Your task to perform on an android device: Open eBay Image 0: 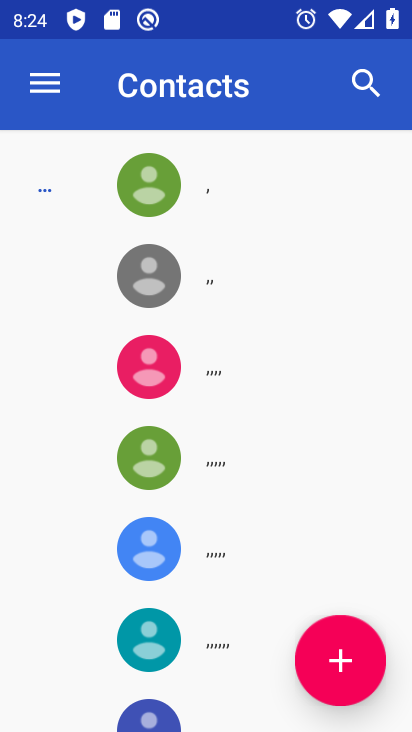
Step 0: press home button
Your task to perform on an android device: Open eBay Image 1: 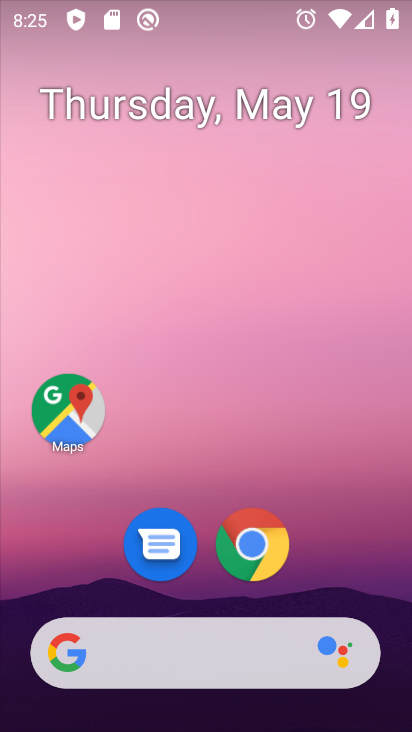
Step 1: drag from (385, 630) to (264, 39)
Your task to perform on an android device: Open eBay Image 2: 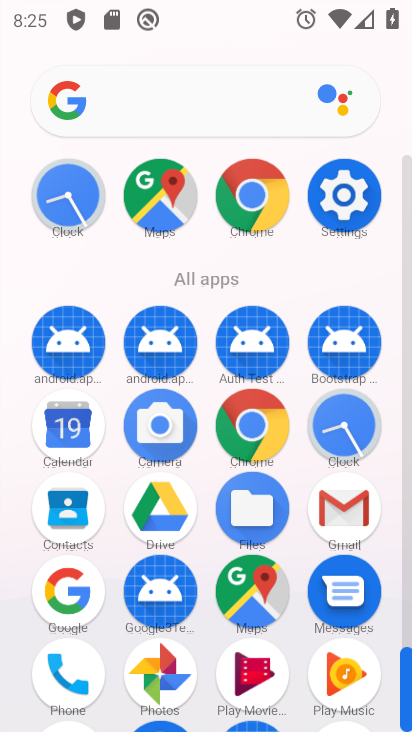
Step 2: click (70, 598)
Your task to perform on an android device: Open eBay Image 3: 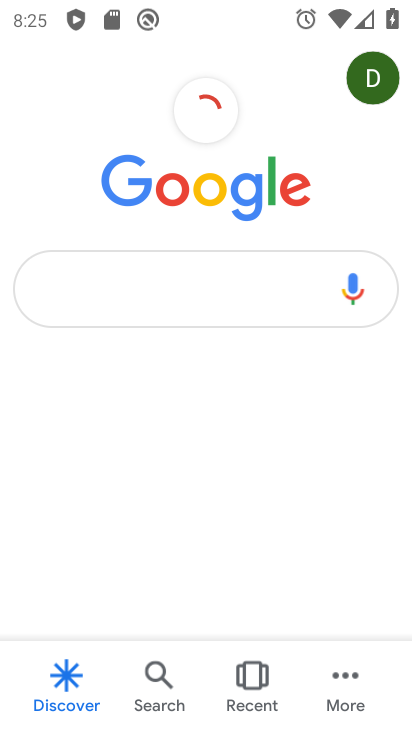
Step 3: click (196, 312)
Your task to perform on an android device: Open eBay Image 4: 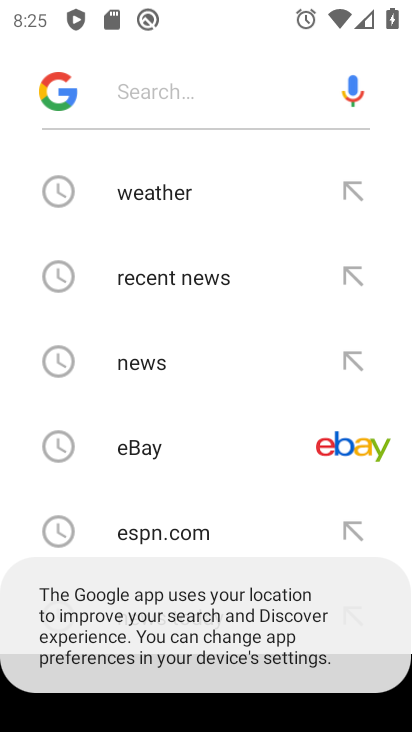
Step 4: click (138, 454)
Your task to perform on an android device: Open eBay Image 5: 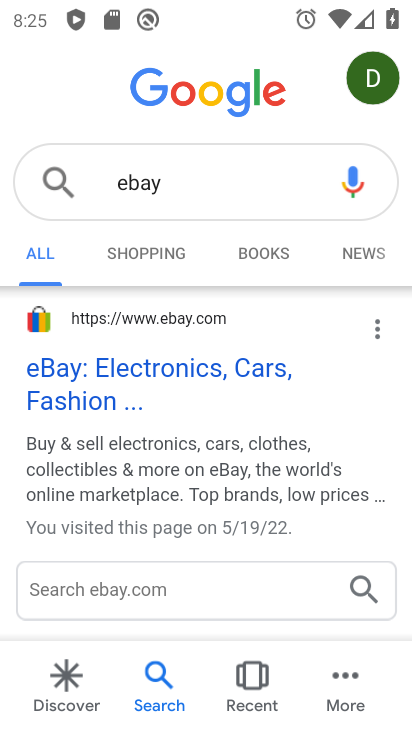
Step 5: task complete